Your task to perform on an android device: turn on notifications settings in the gmail app Image 0: 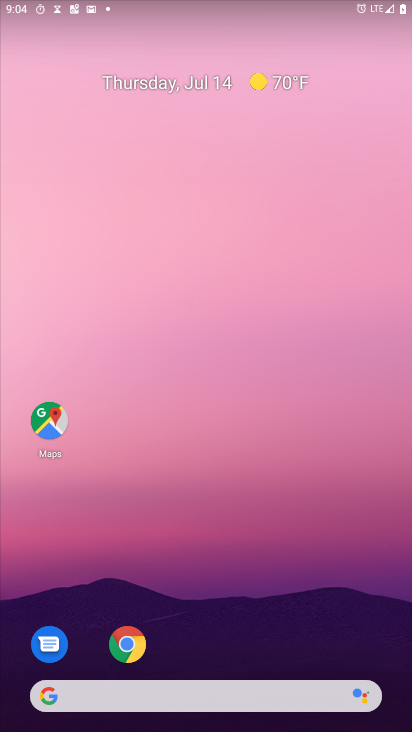
Step 0: drag from (150, 668) to (310, 201)
Your task to perform on an android device: turn on notifications settings in the gmail app Image 1: 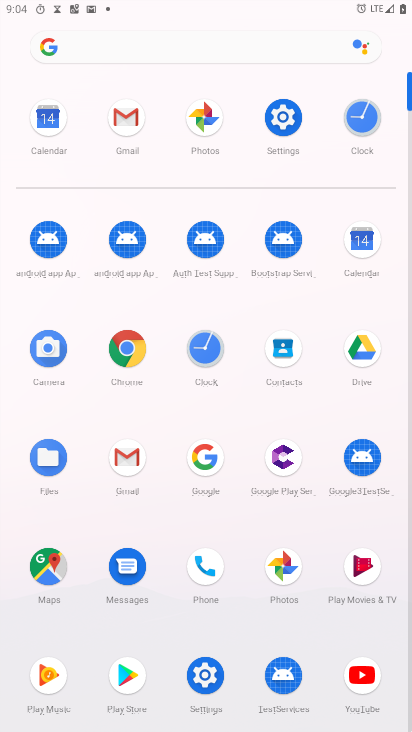
Step 1: click (126, 116)
Your task to perform on an android device: turn on notifications settings in the gmail app Image 2: 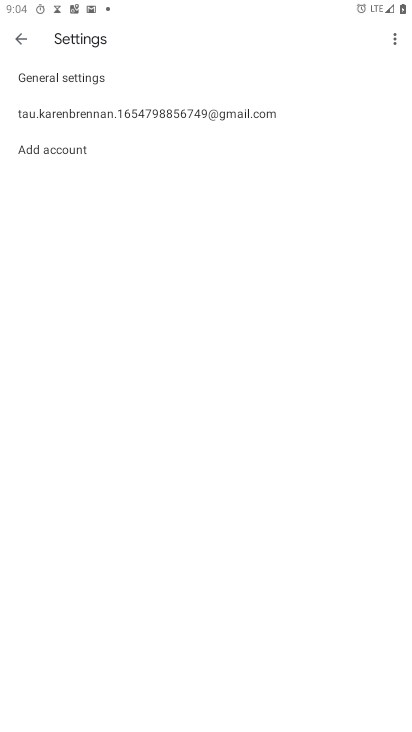
Step 2: click (151, 113)
Your task to perform on an android device: turn on notifications settings in the gmail app Image 3: 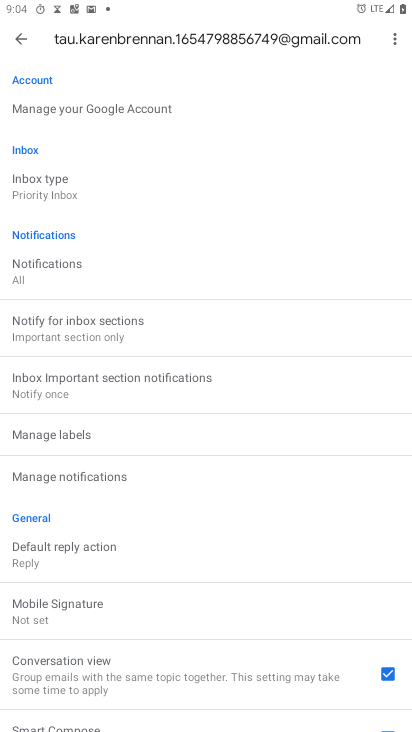
Step 3: click (90, 288)
Your task to perform on an android device: turn on notifications settings in the gmail app Image 4: 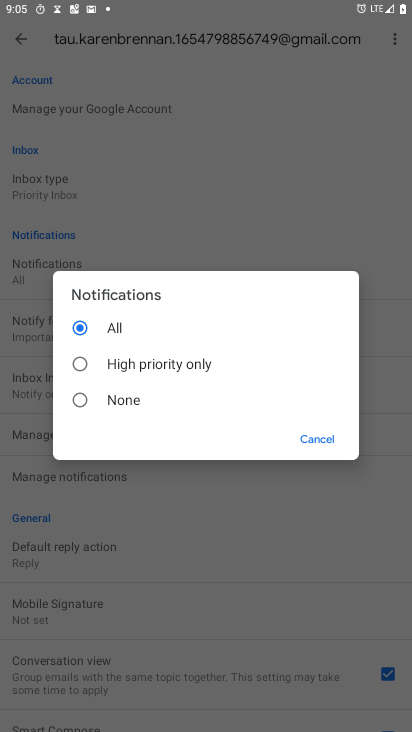
Step 4: task complete